Your task to perform on an android device: change the clock display to show seconds Image 0: 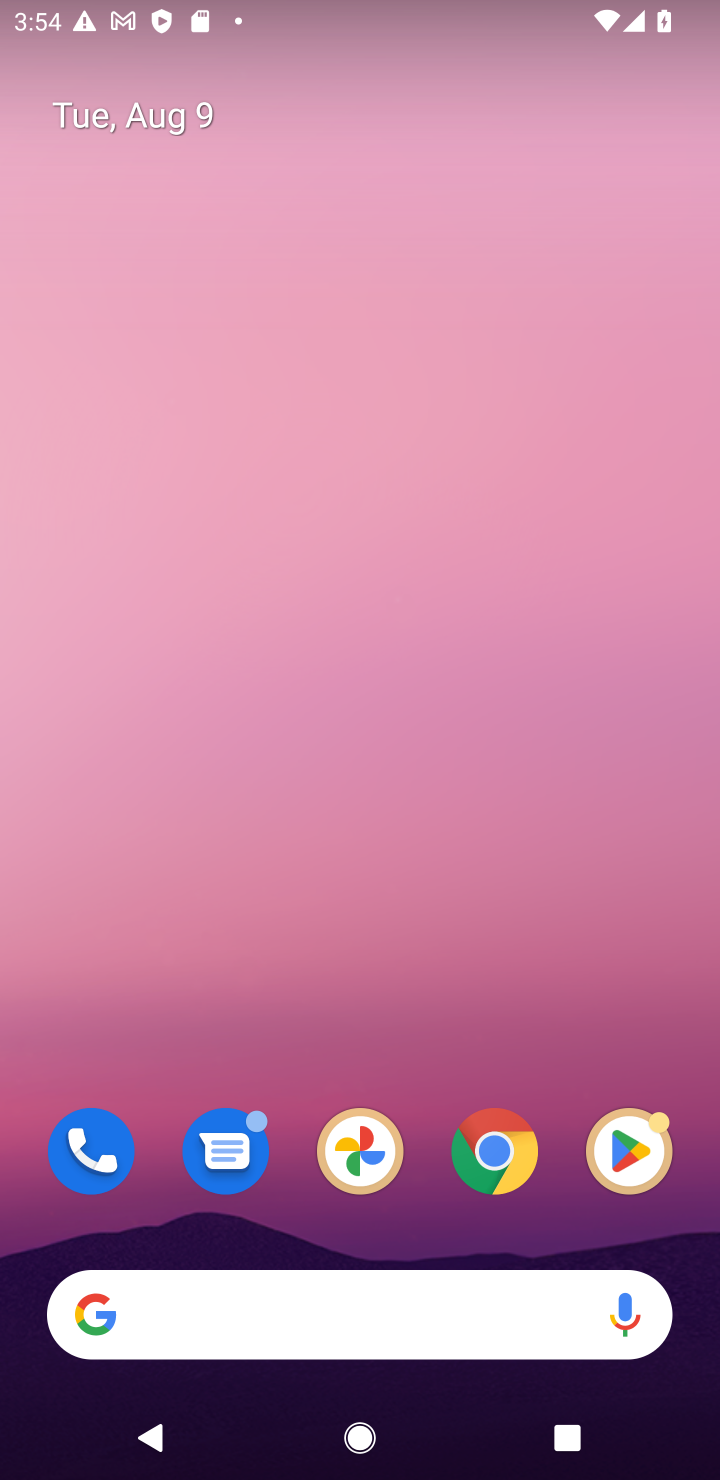
Step 0: drag from (379, 801) to (370, 134)
Your task to perform on an android device: change the clock display to show seconds Image 1: 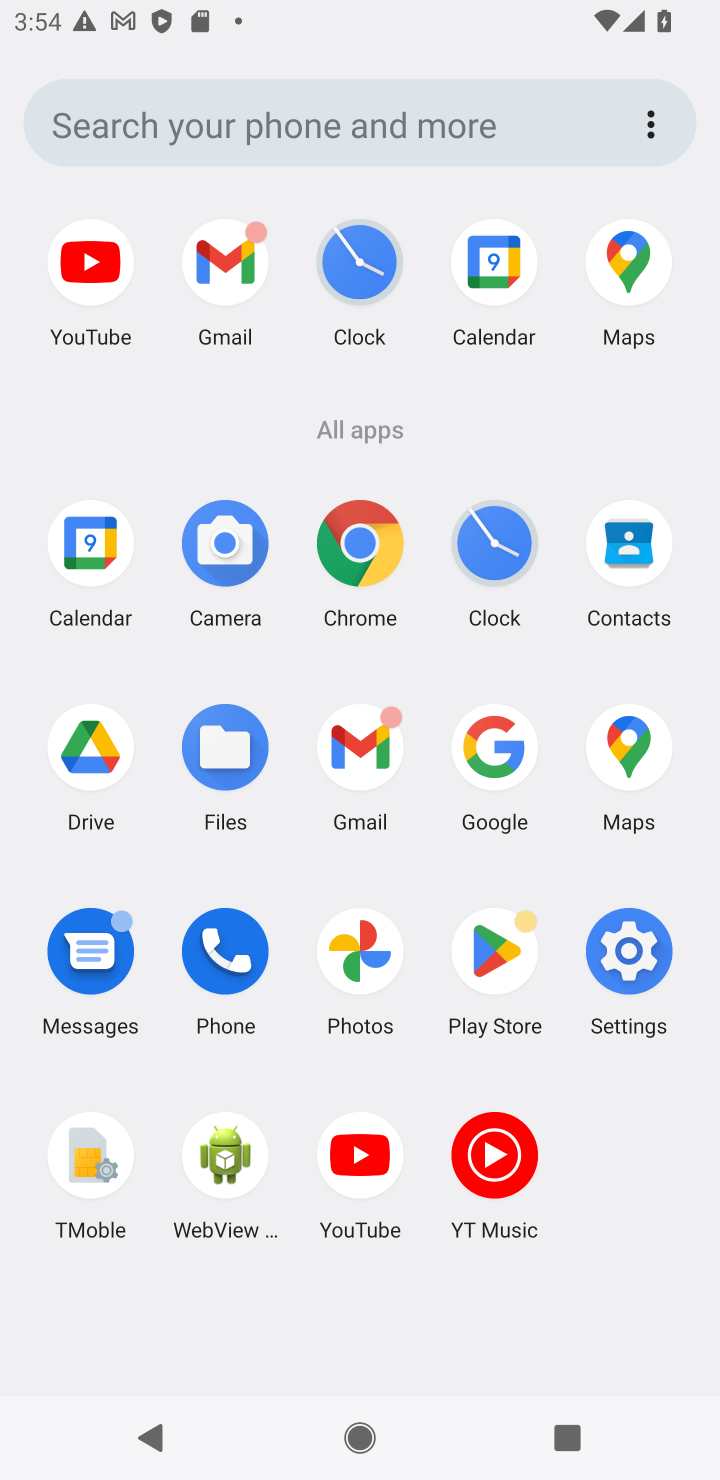
Step 1: click (476, 541)
Your task to perform on an android device: change the clock display to show seconds Image 2: 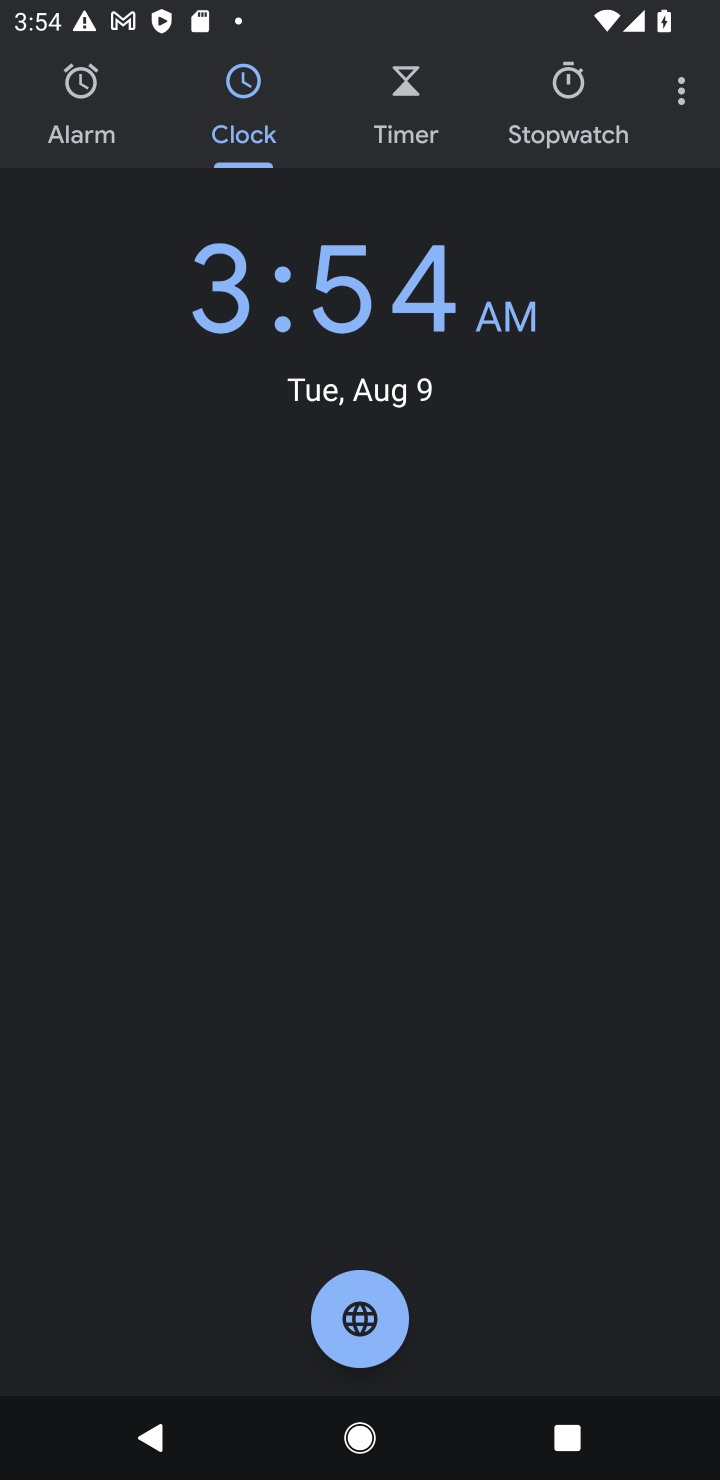
Step 2: click (687, 92)
Your task to perform on an android device: change the clock display to show seconds Image 3: 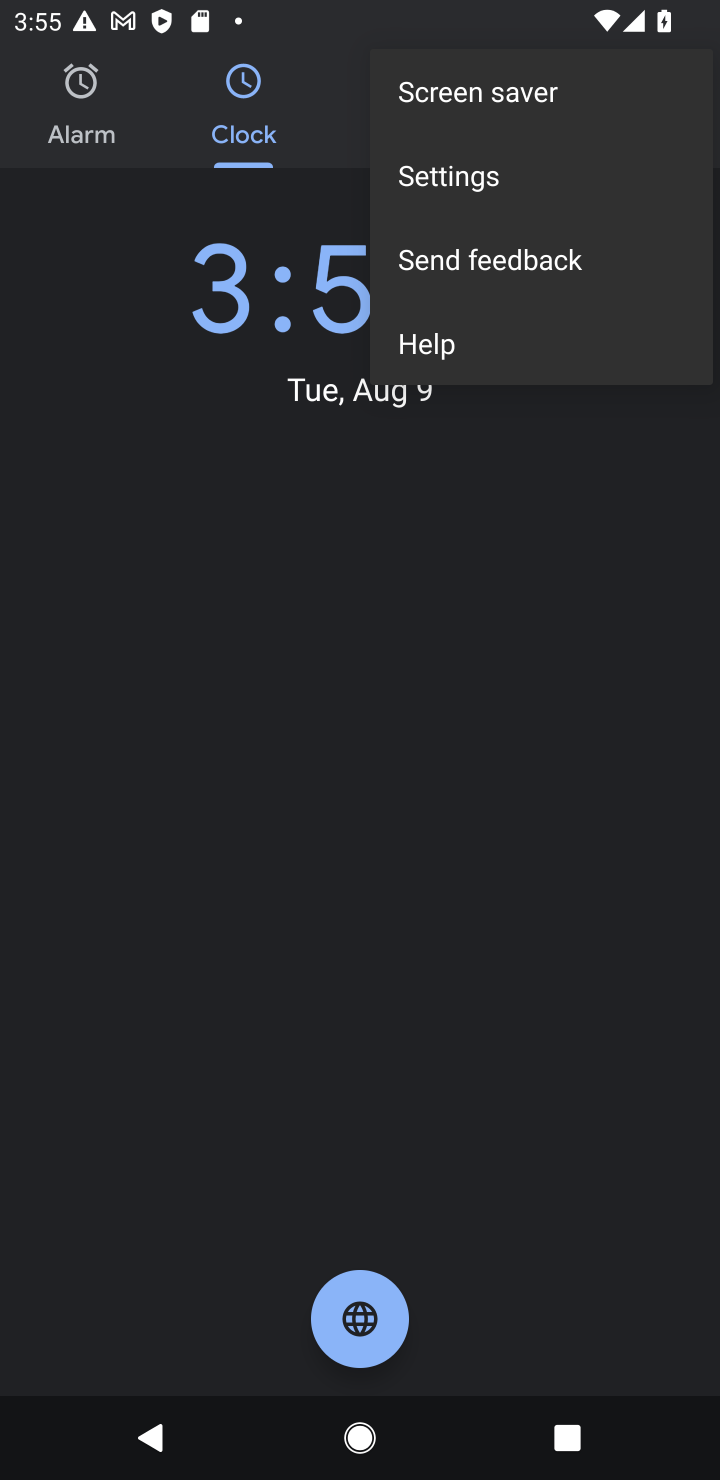
Step 3: click (438, 171)
Your task to perform on an android device: change the clock display to show seconds Image 4: 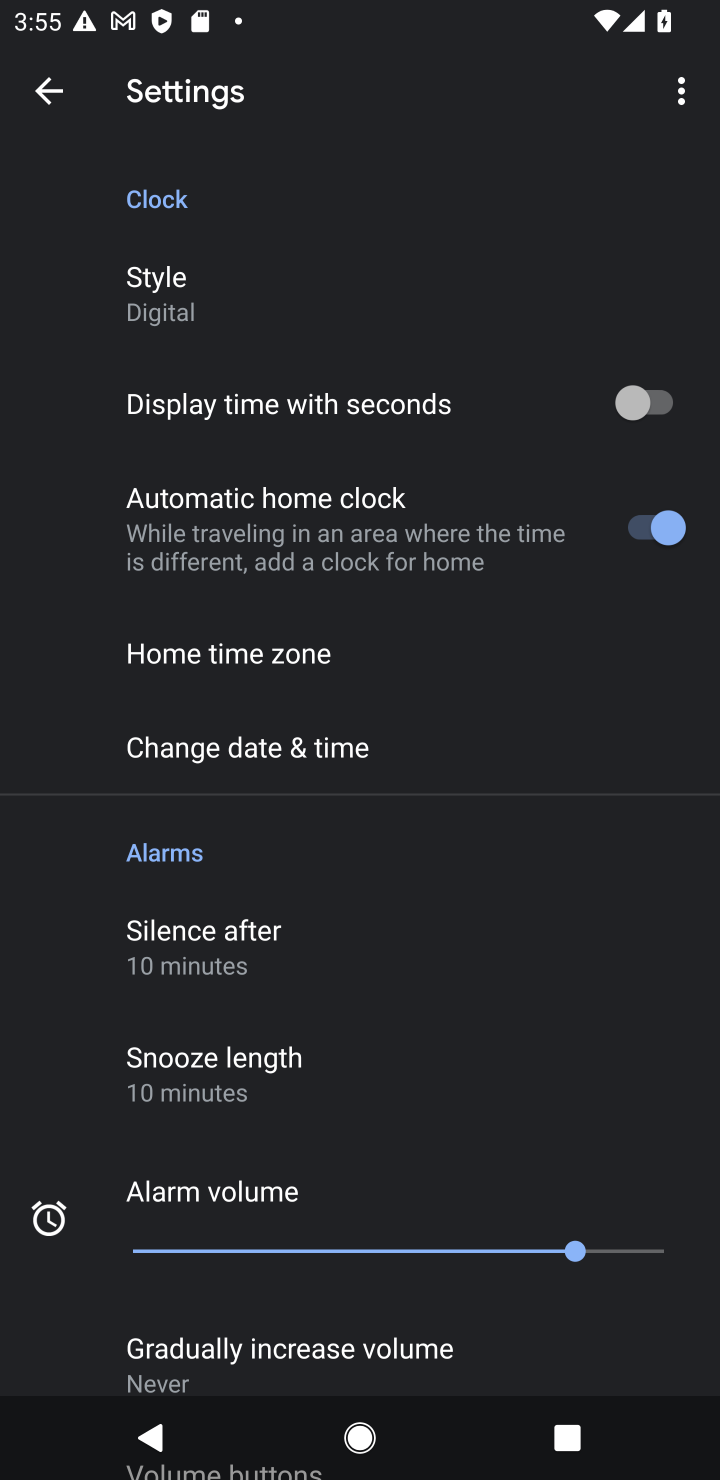
Step 4: click (648, 410)
Your task to perform on an android device: change the clock display to show seconds Image 5: 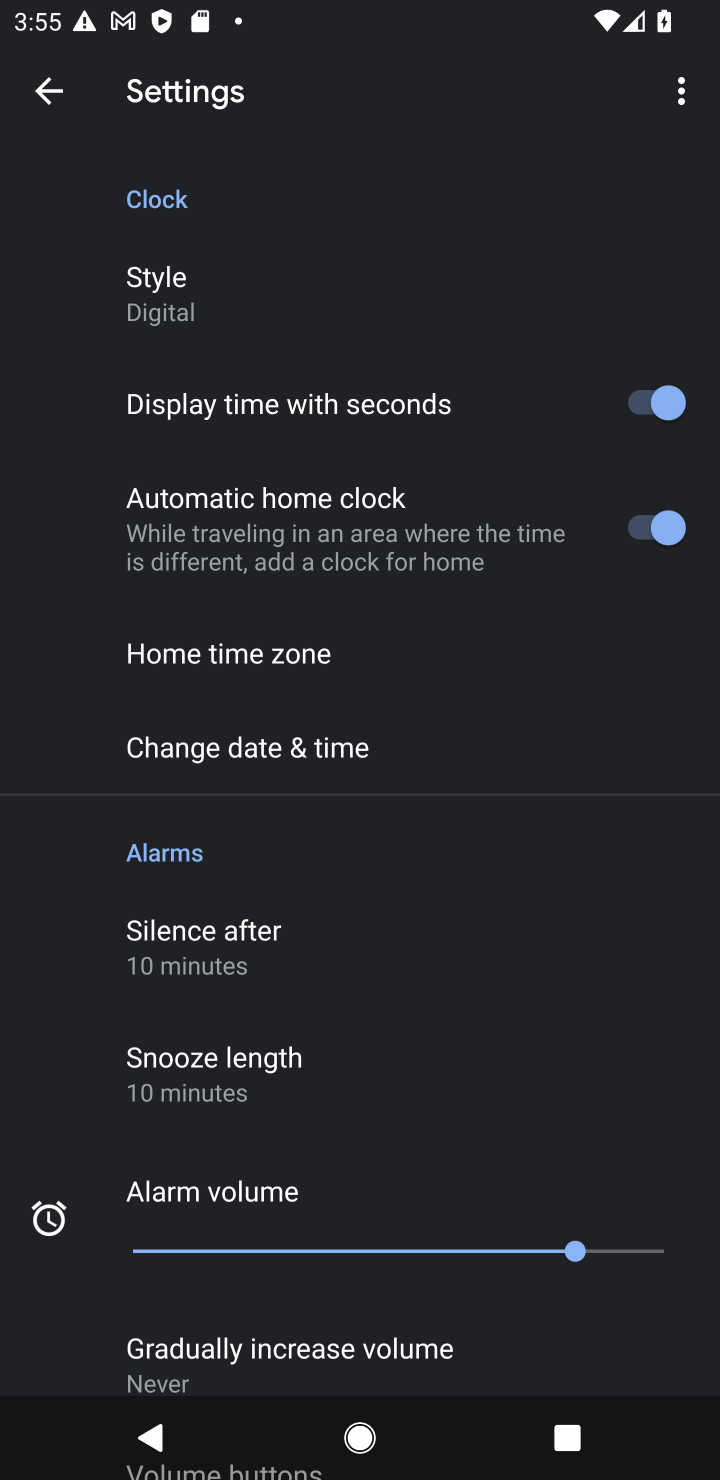
Step 5: task complete